Your task to perform on an android device: delete the emails in spam in the gmail app Image 0: 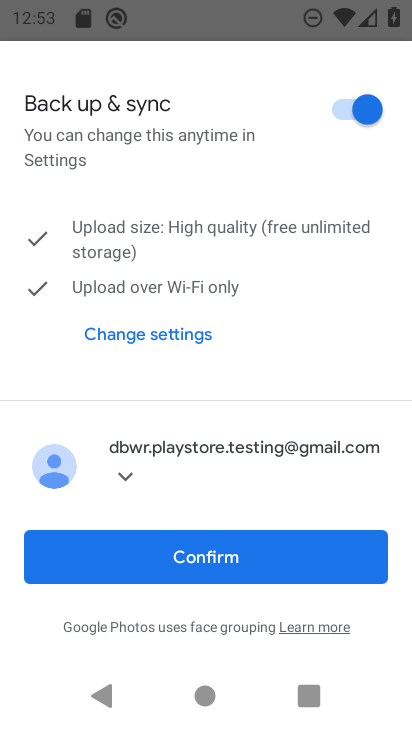
Step 0: press home button
Your task to perform on an android device: delete the emails in spam in the gmail app Image 1: 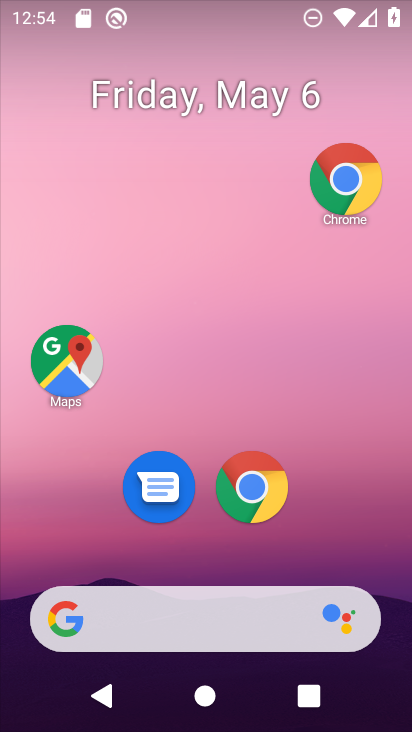
Step 1: drag from (332, 561) to (283, 216)
Your task to perform on an android device: delete the emails in spam in the gmail app Image 2: 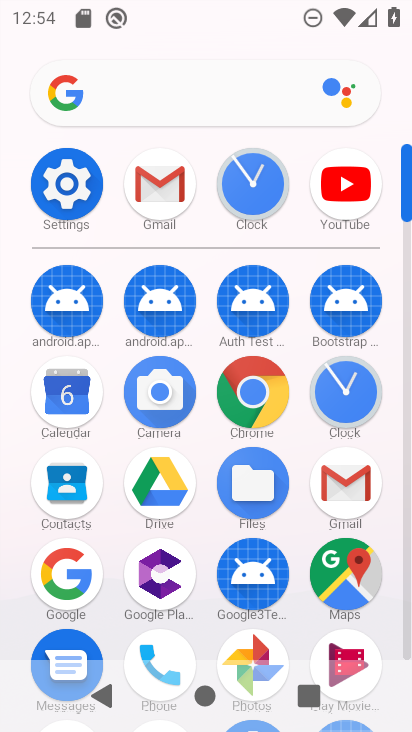
Step 2: click (151, 211)
Your task to perform on an android device: delete the emails in spam in the gmail app Image 3: 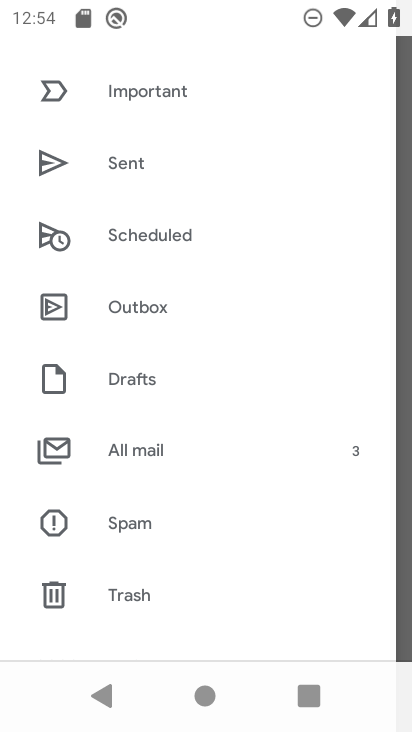
Step 3: drag from (267, 327) to (257, 582)
Your task to perform on an android device: delete the emails in spam in the gmail app Image 4: 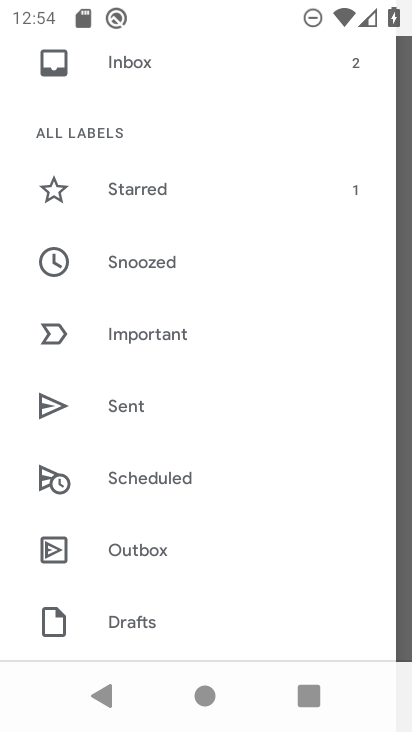
Step 4: drag from (224, 535) to (226, 383)
Your task to perform on an android device: delete the emails in spam in the gmail app Image 5: 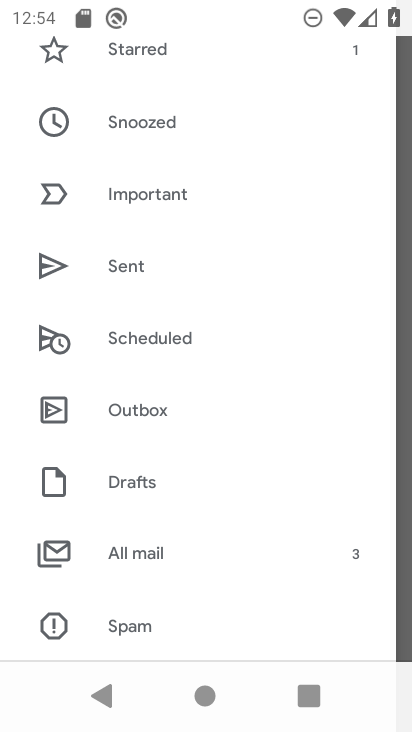
Step 5: click (181, 554)
Your task to perform on an android device: delete the emails in spam in the gmail app Image 6: 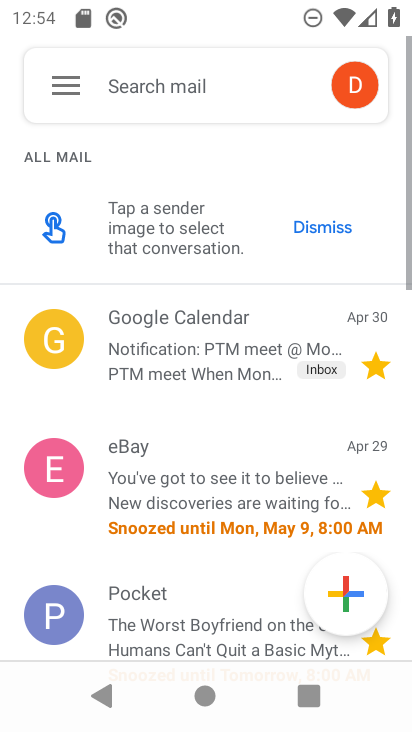
Step 6: click (73, 85)
Your task to perform on an android device: delete the emails in spam in the gmail app Image 7: 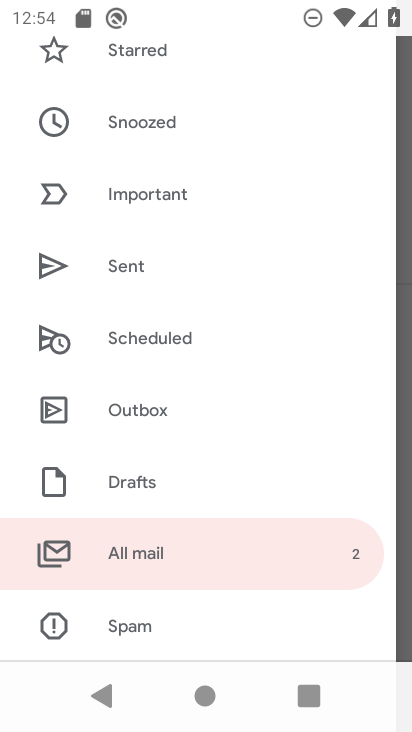
Step 7: click (139, 609)
Your task to perform on an android device: delete the emails in spam in the gmail app Image 8: 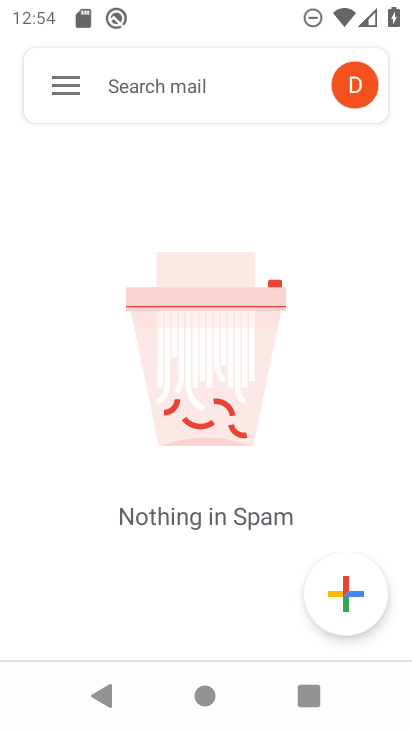
Step 8: task complete